Your task to perform on an android device: turn off javascript in the chrome app Image 0: 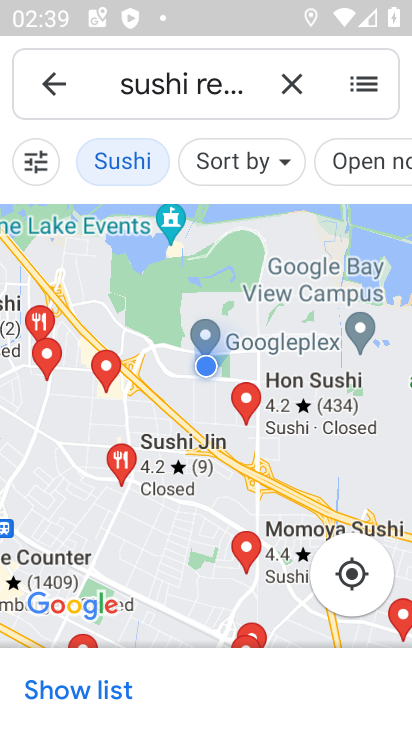
Step 0: press home button
Your task to perform on an android device: turn off javascript in the chrome app Image 1: 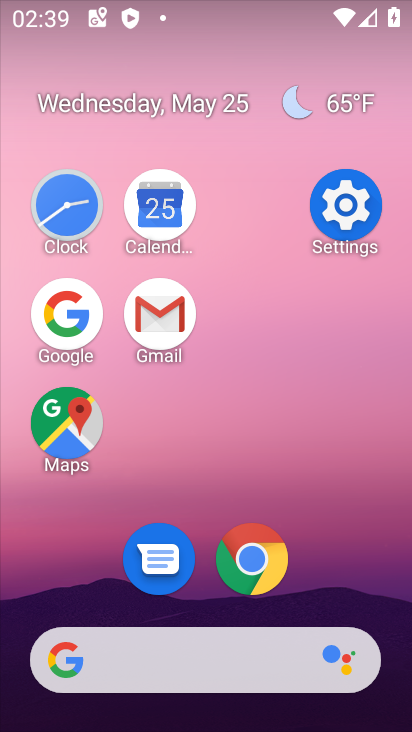
Step 1: click (237, 546)
Your task to perform on an android device: turn off javascript in the chrome app Image 2: 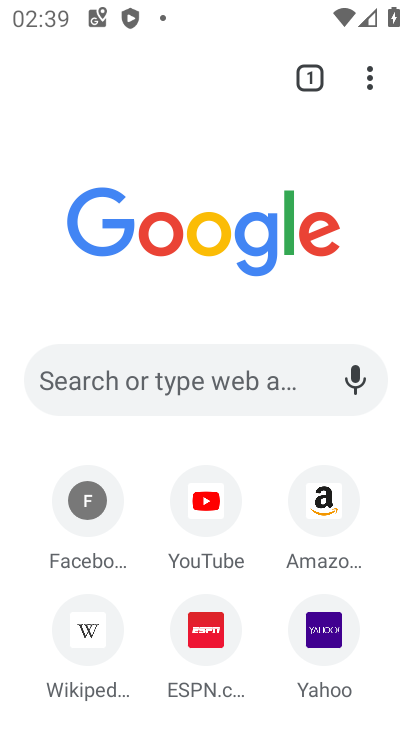
Step 2: click (375, 78)
Your task to perform on an android device: turn off javascript in the chrome app Image 3: 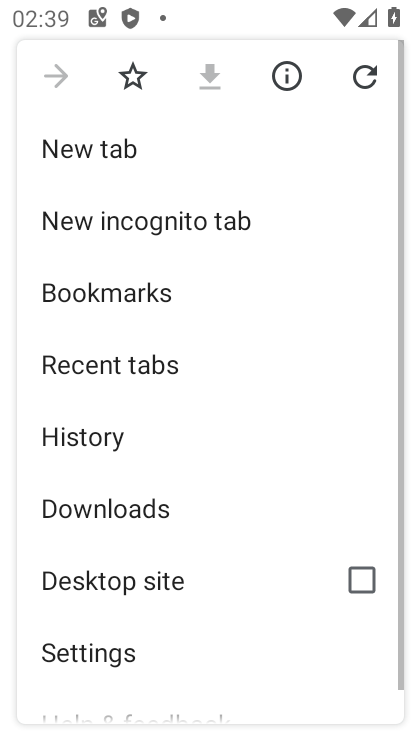
Step 3: drag from (256, 438) to (263, 102)
Your task to perform on an android device: turn off javascript in the chrome app Image 4: 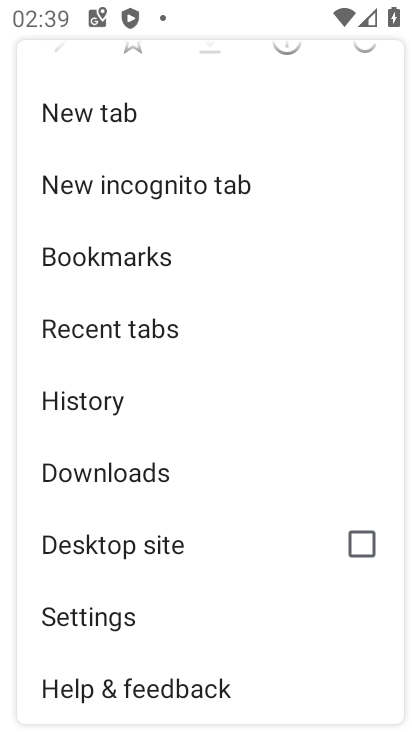
Step 4: click (130, 606)
Your task to perform on an android device: turn off javascript in the chrome app Image 5: 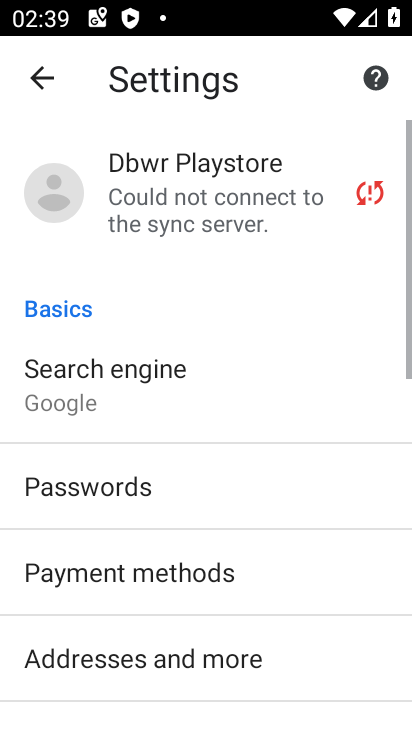
Step 5: drag from (262, 521) to (310, 180)
Your task to perform on an android device: turn off javascript in the chrome app Image 6: 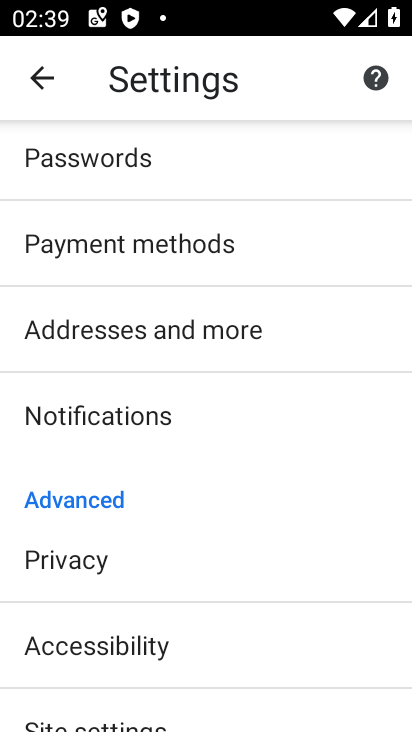
Step 6: drag from (204, 546) to (256, 159)
Your task to perform on an android device: turn off javascript in the chrome app Image 7: 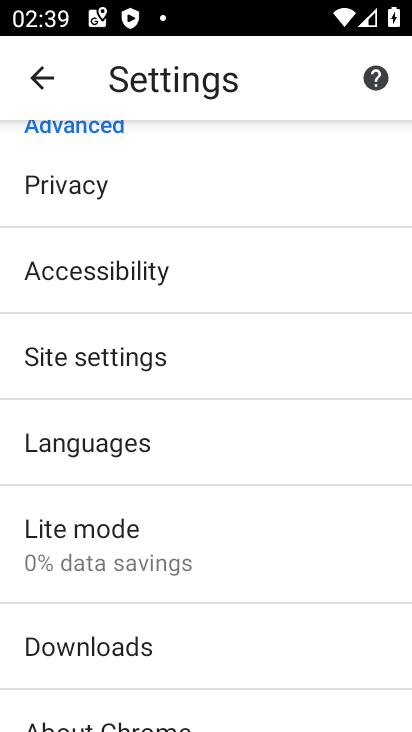
Step 7: click (160, 353)
Your task to perform on an android device: turn off javascript in the chrome app Image 8: 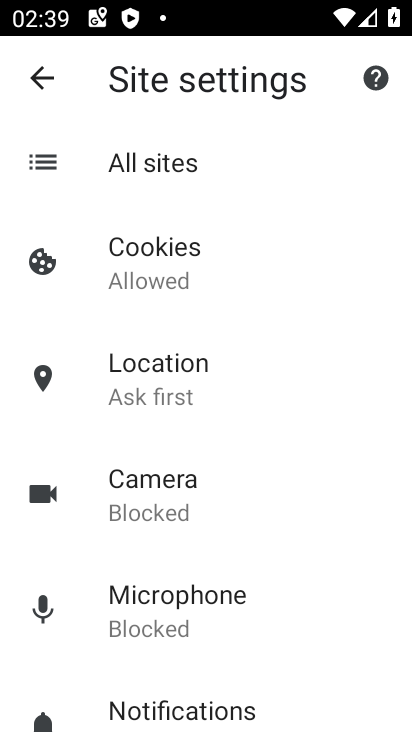
Step 8: drag from (203, 588) to (209, 273)
Your task to perform on an android device: turn off javascript in the chrome app Image 9: 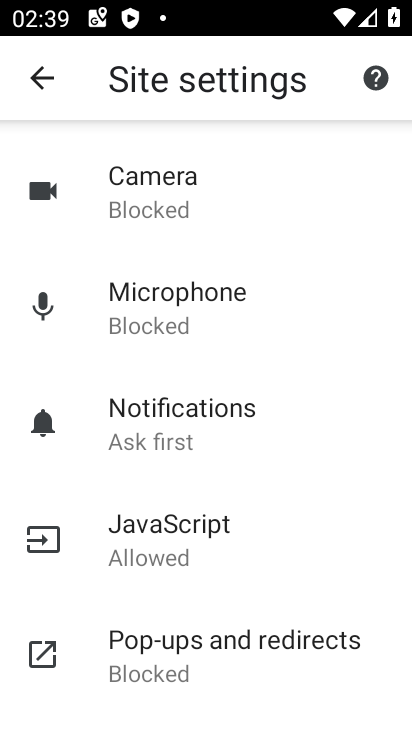
Step 9: click (203, 514)
Your task to perform on an android device: turn off javascript in the chrome app Image 10: 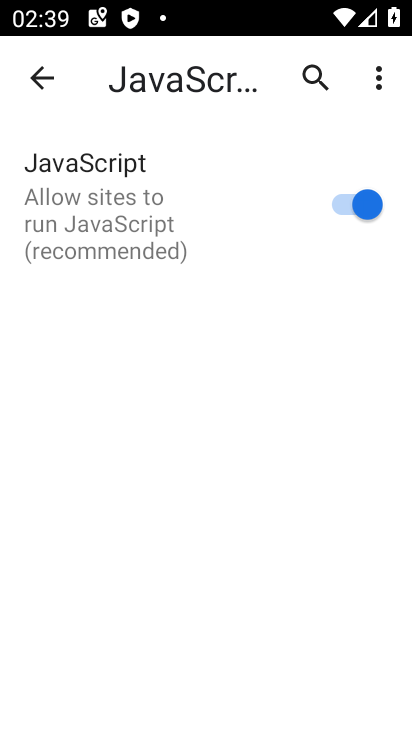
Step 10: click (362, 219)
Your task to perform on an android device: turn off javascript in the chrome app Image 11: 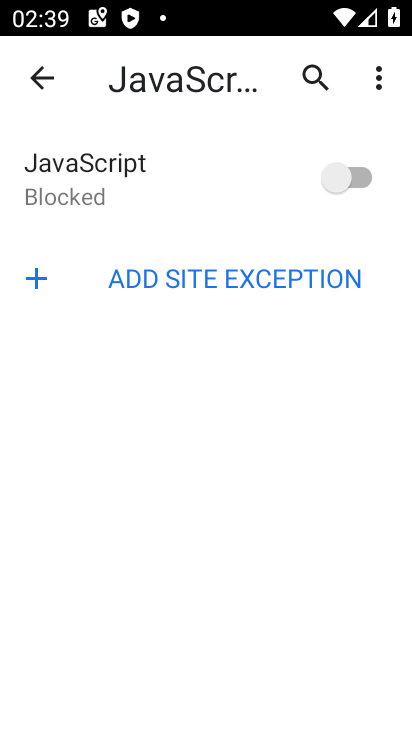
Step 11: task complete